Your task to perform on an android device: clear history in the chrome app Image 0: 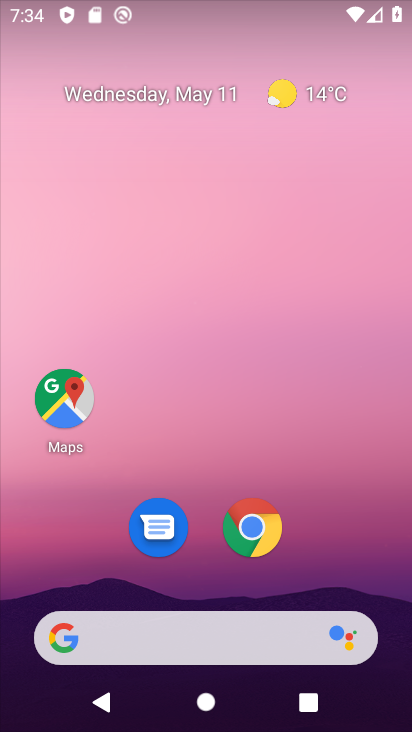
Step 0: click (251, 522)
Your task to perform on an android device: clear history in the chrome app Image 1: 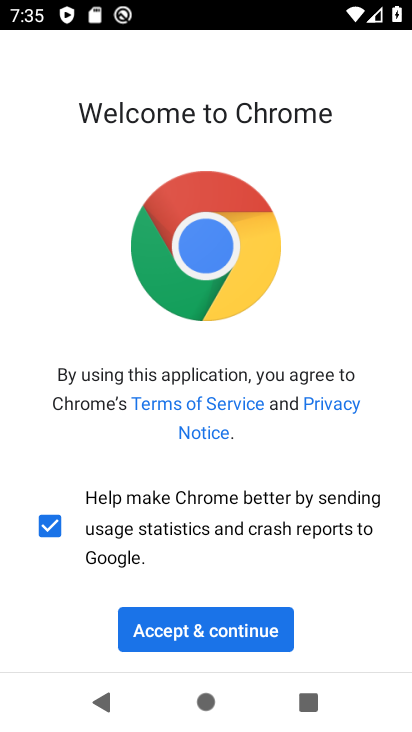
Step 1: click (186, 649)
Your task to perform on an android device: clear history in the chrome app Image 2: 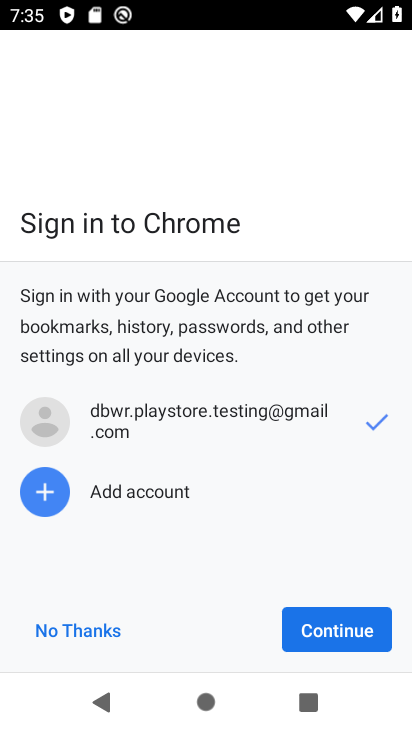
Step 2: click (305, 636)
Your task to perform on an android device: clear history in the chrome app Image 3: 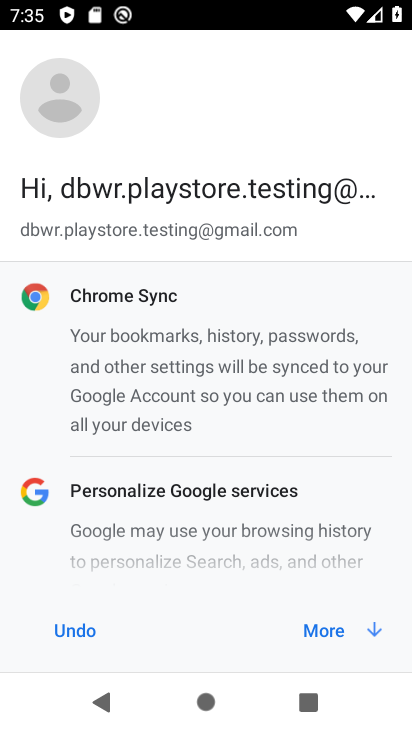
Step 3: click (305, 636)
Your task to perform on an android device: clear history in the chrome app Image 4: 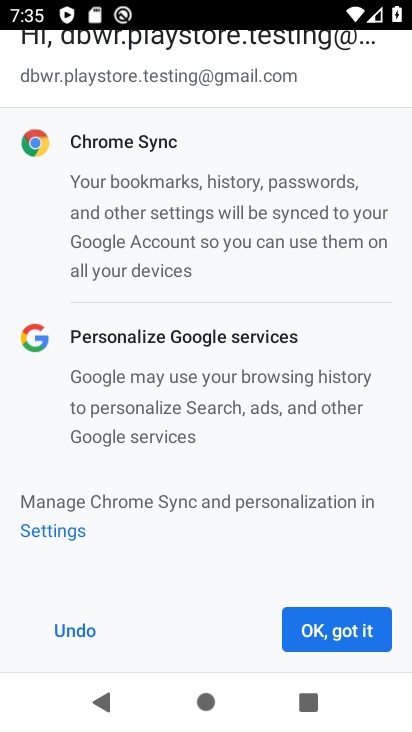
Step 4: click (305, 636)
Your task to perform on an android device: clear history in the chrome app Image 5: 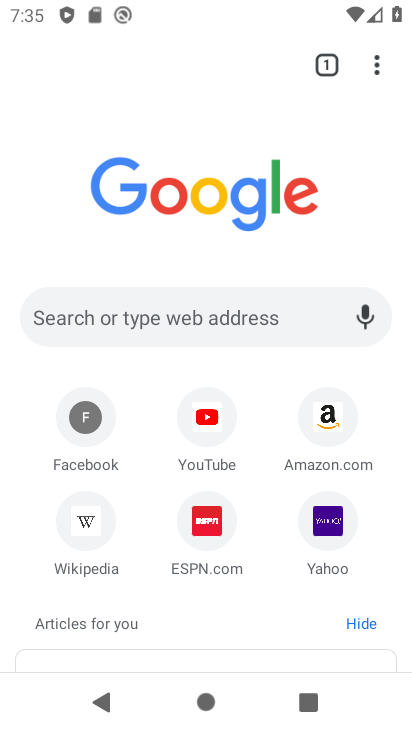
Step 5: click (367, 69)
Your task to perform on an android device: clear history in the chrome app Image 6: 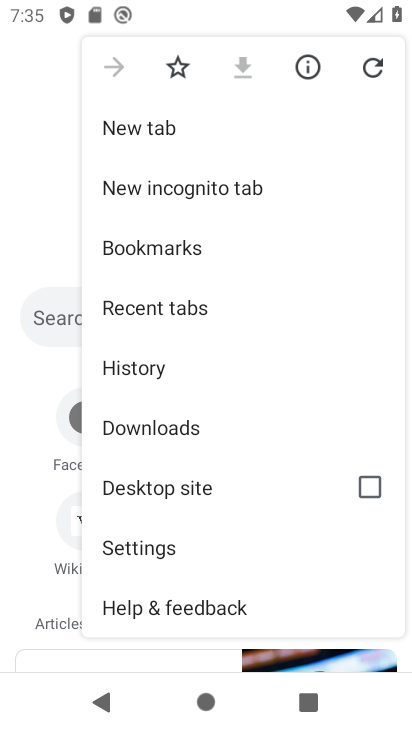
Step 6: click (117, 375)
Your task to perform on an android device: clear history in the chrome app Image 7: 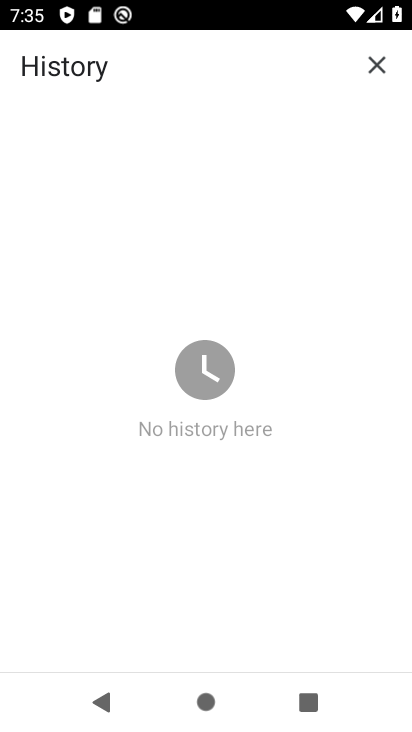
Step 7: task complete